Your task to perform on an android device: toggle pop-ups in chrome Image 0: 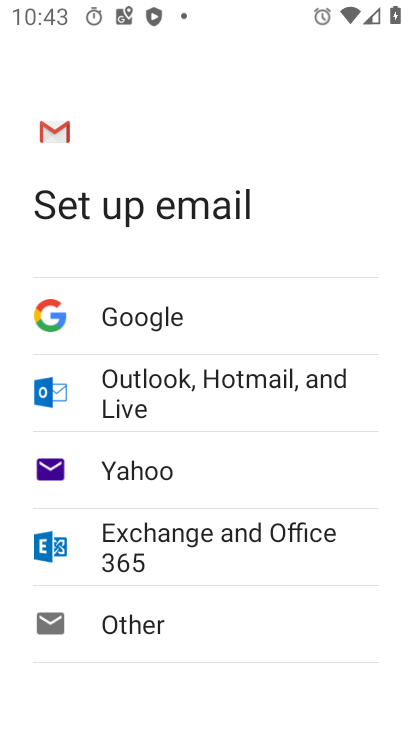
Step 0: press back button
Your task to perform on an android device: toggle pop-ups in chrome Image 1: 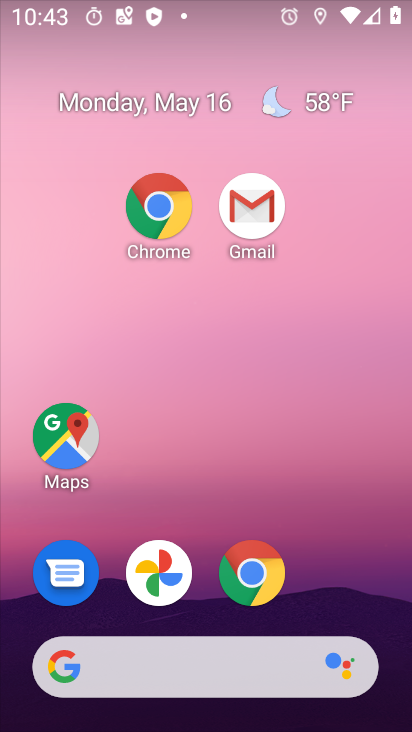
Step 1: drag from (370, 633) to (175, 89)
Your task to perform on an android device: toggle pop-ups in chrome Image 2: 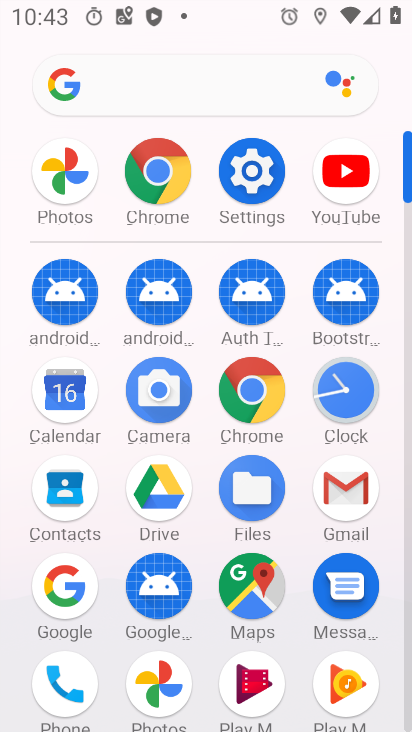
Step 2: click (149, 175)
Your task to perform on an android device: toggle pop-ups in chrome Image 3: 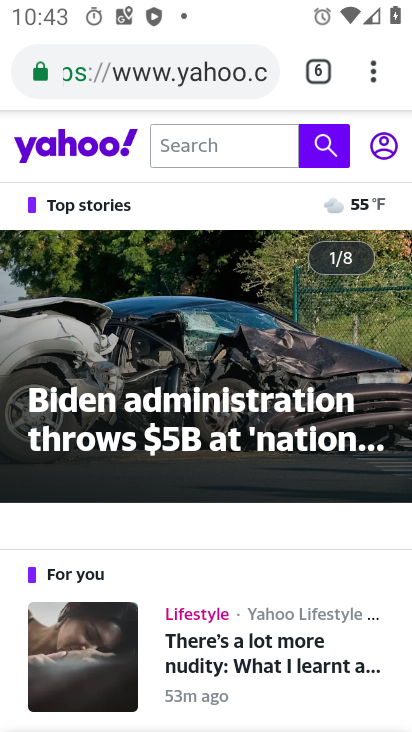
Step 3: drag from (368, 83) to (85, 575)
Your task to perform on an android device: toggle pop-ups in chrome Image 4: 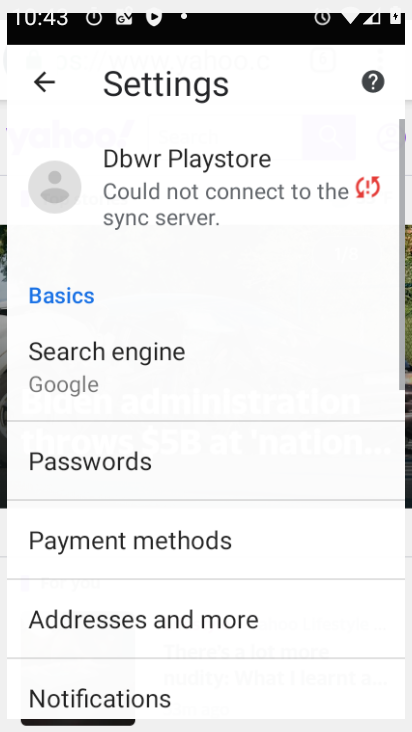
Step 4: click (103, 565)
Your task to perform on an android device: toggle pop-ups in chrome Image 5: 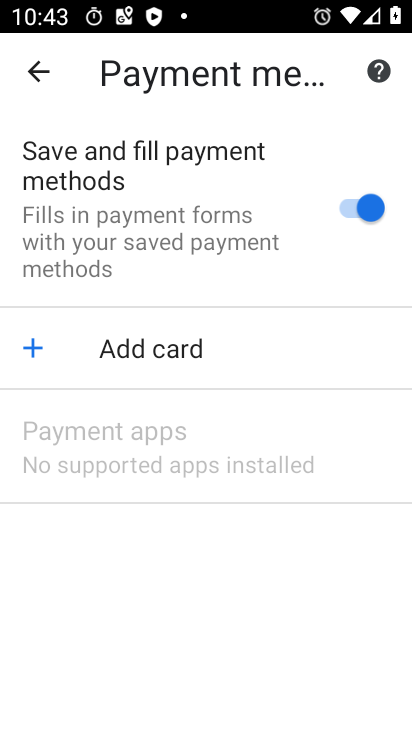
Step 5: click (37, 70)
Your task to perform on an android device: toggle pop-ups in chrome Image 6: 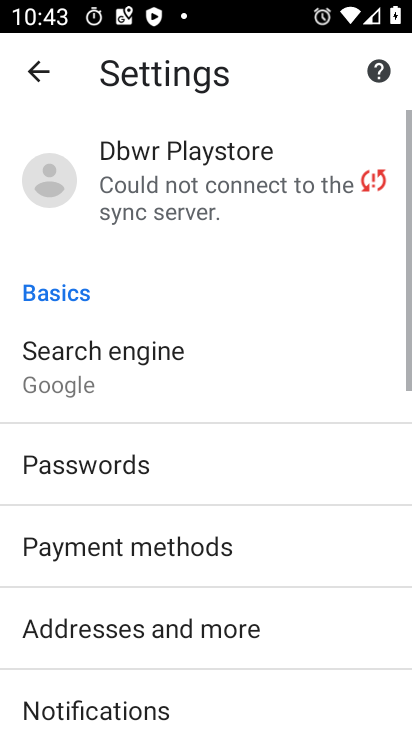
Step 6: drag from (202, 520) to (160, 253)
Your task to perform on an android device: toggle pop-ups in chrome Image 7: 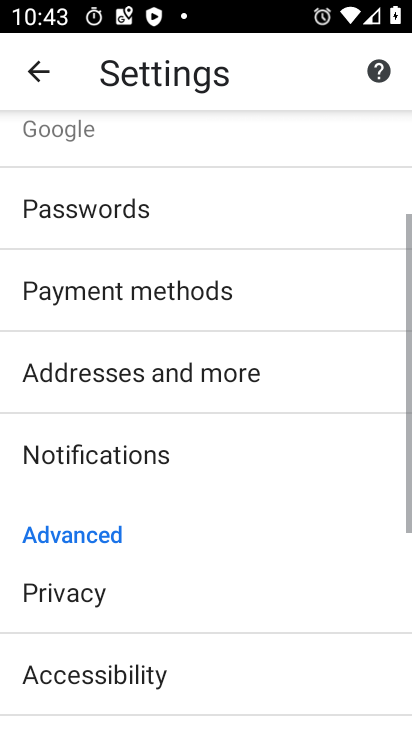
Step 7: drag from (233, 450) to (170, 272)
Your task to perform on an android device: toggle pop-ups in chrome Image 8: 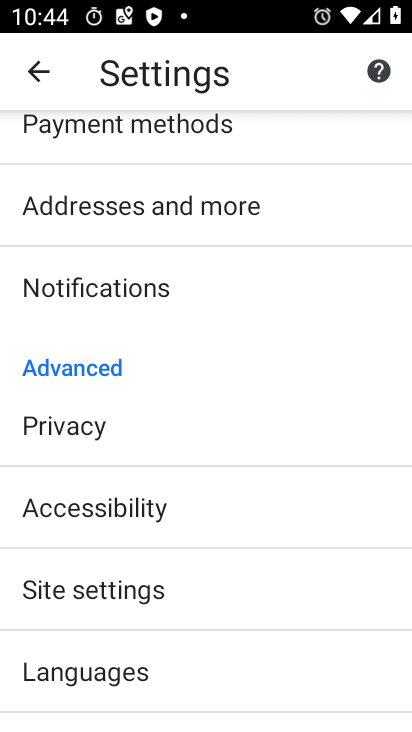
Step 8: click (85, 579)
Your task to perform on an android device: toggle pop-ups in chrome Image 9: 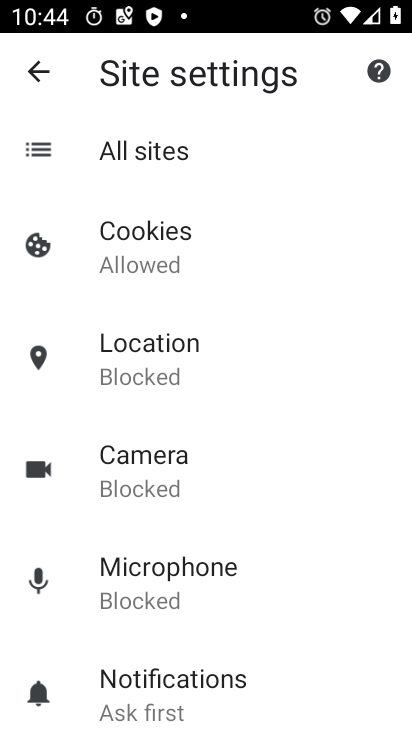
Step 9: drag from (153, 651) to (125, 365)
Your task to perform on an android device: toggle pop-ups in chrome Image 10: 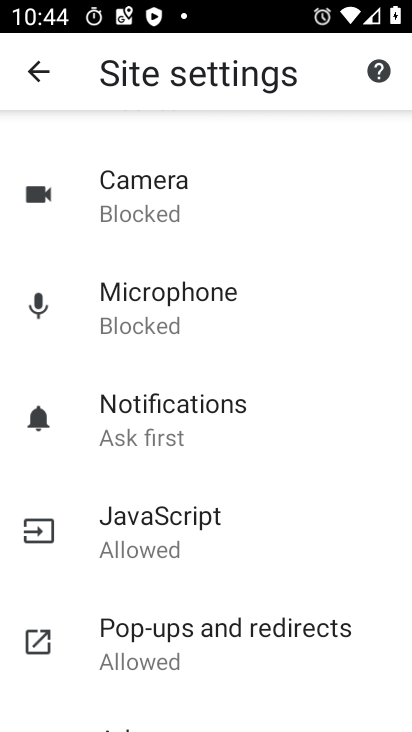
Step 10: click (174, 619)
Your task to perform on an android device: toggle pop-ups in chrome Image 11: 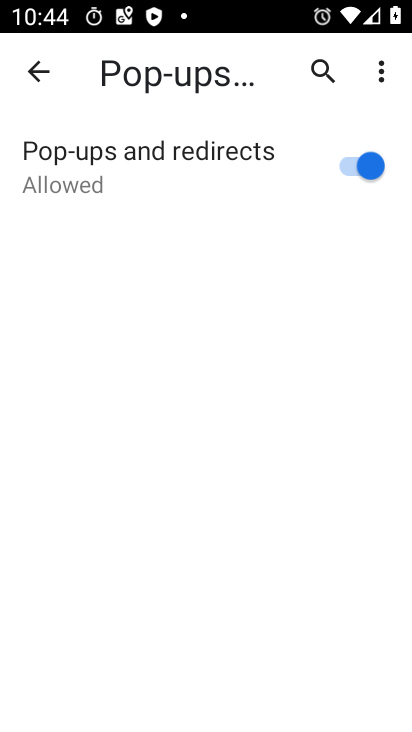
Step 11: click (362, 167)
Your task to perform on an android device: toggle pop-ups in chrome Image 12: 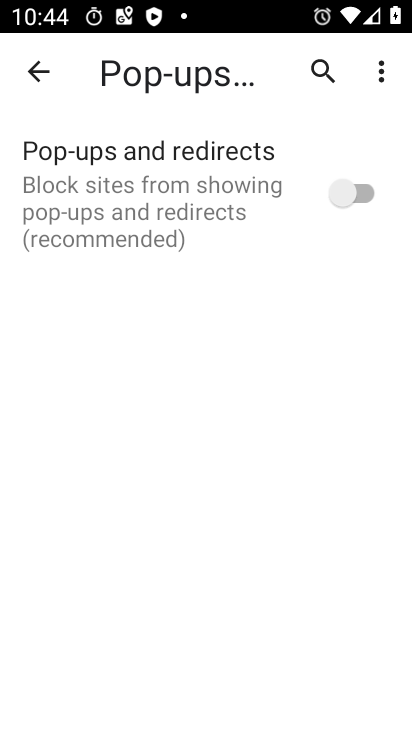
Step 12: task complete